Your task to perform on an android device: Open Google Chrome and open the bookmarks view Image 0: 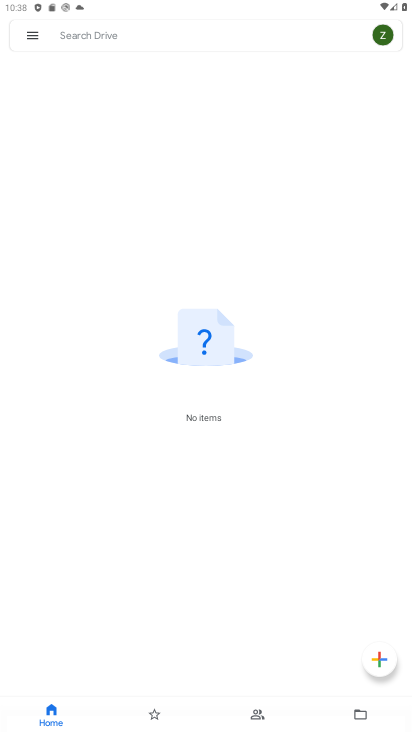
Step 0: task complete